Your task to perform on an android device: Open calendar and show me the second week of next month Image 0: 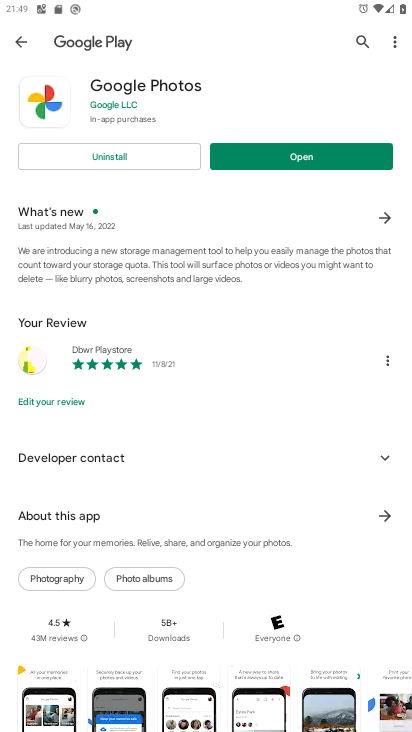
Step 0: press home button
Your task to perform on an android device: Open calendar and show me the second week of next month Image 1: 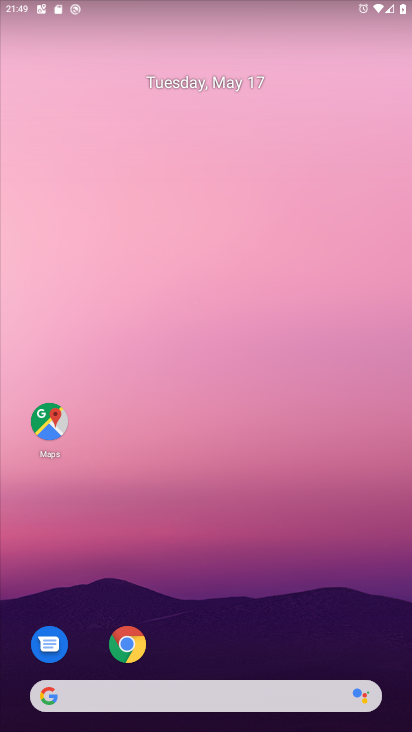
Step 1: drag from (208, 656) to (250, 170)
Your task to perform on an android device: Open calendar and show me the second week of next month Image 2: 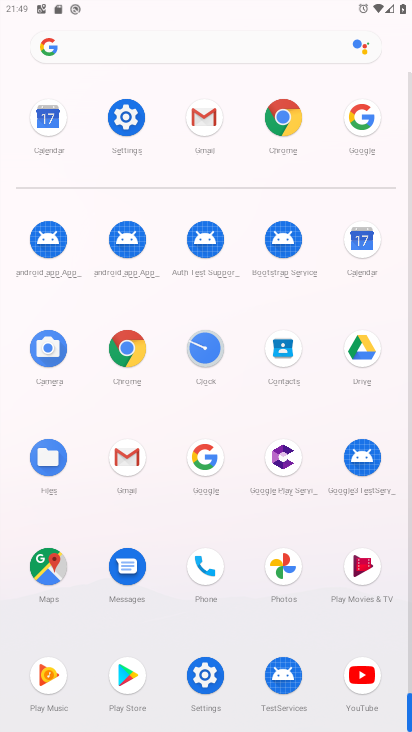
Step 2: click (365, 235)
Your task to perform on an android device: Open calendar and show me the second week of next month Image 3: 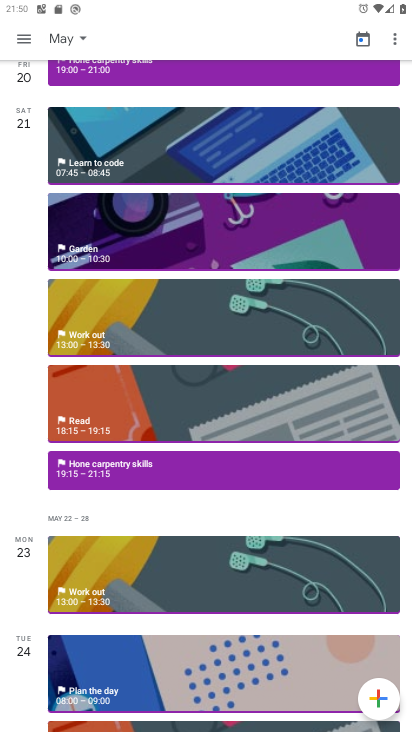
Step 3: click (76, 33)
Your task to perform on an android device: Open calendar and show me the second week of next month Image 4: 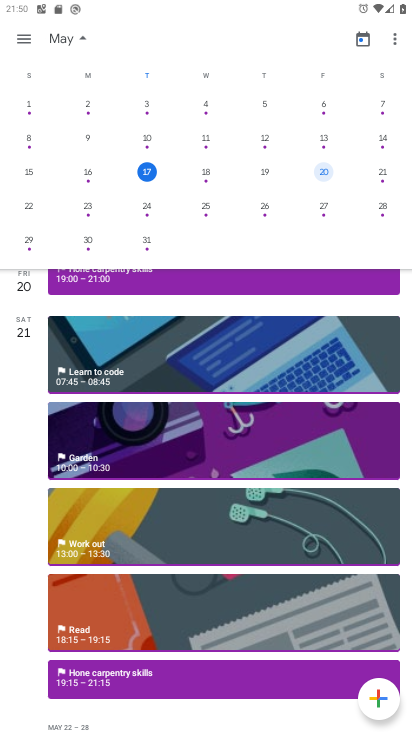
Step 4: drag from (367, 154) to (52, 140)
Your task to perform on an android device: Open calendar and show me the second week of next month Image 5: 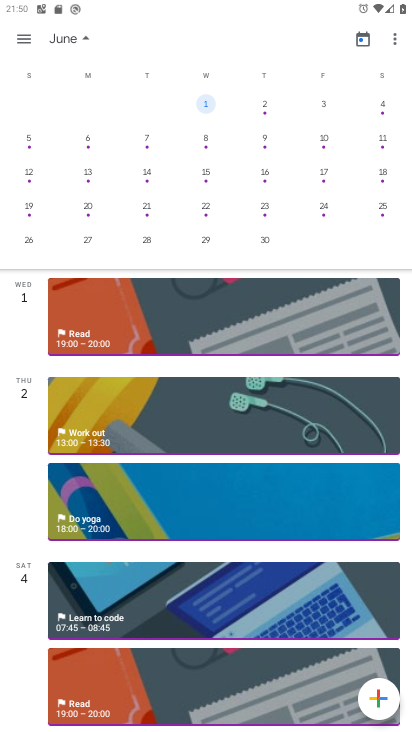
Step 5: click (31, 140)
Your task to perform on an android device: Open calendar and show me the second week of next month Image 6: 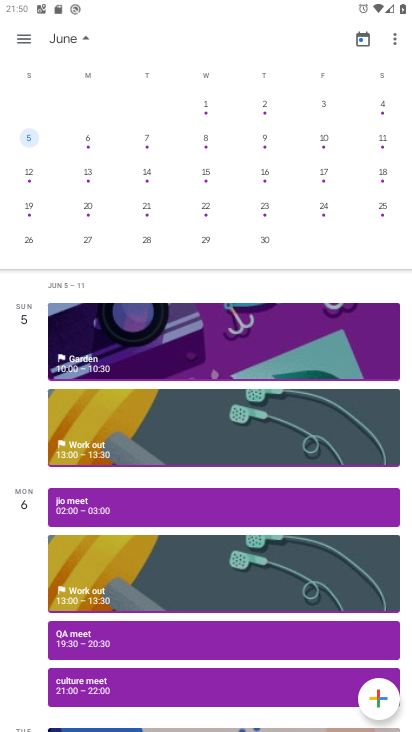
Step 6: click (87, 33)
Your task to perform on an android device: Open calendar and show me the second week of next month Image 7: 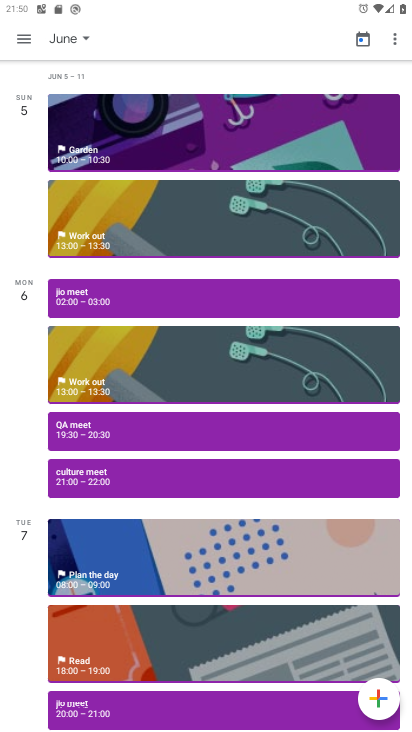
Step 7: task complete